Your task to perform on an android device: Show me popular videos on Youtube Image 0: 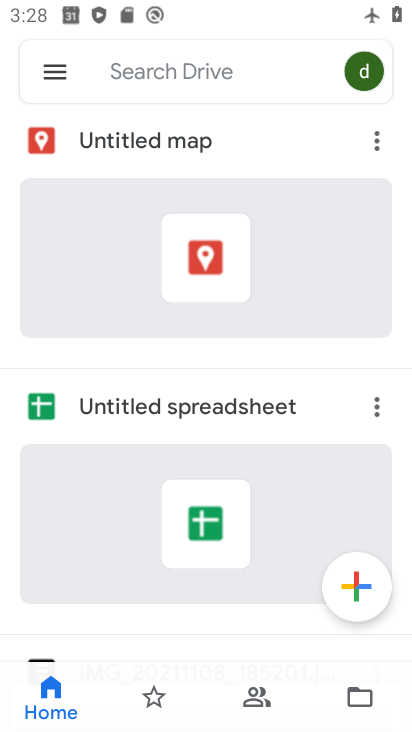
Step 0: press home button
Your task to perform on an android device: Show me popular videos on Youtube Image 1: 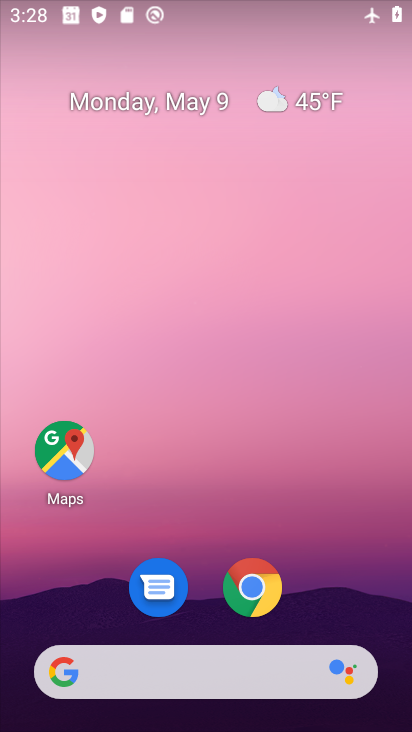
Step 1: drag from (401, 678) to (331, 263)
Your task to perform on an android device: Show me popular videos on Youtube Image 2: 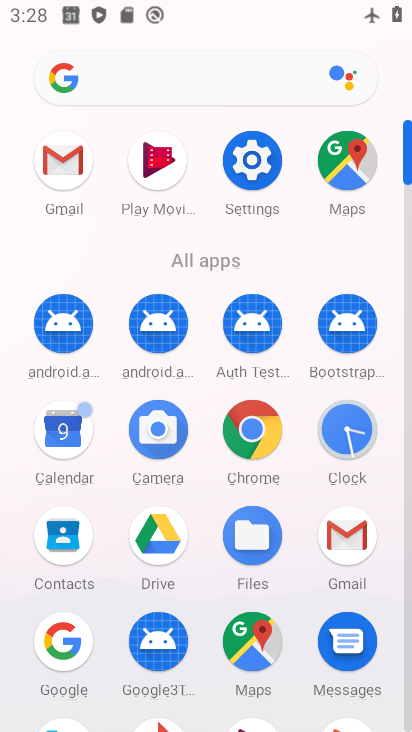
Step 2: drag from (405, 129) to (411, 44)
Your task to perform on an android device: Show me popular videos on Youtube Image 3: 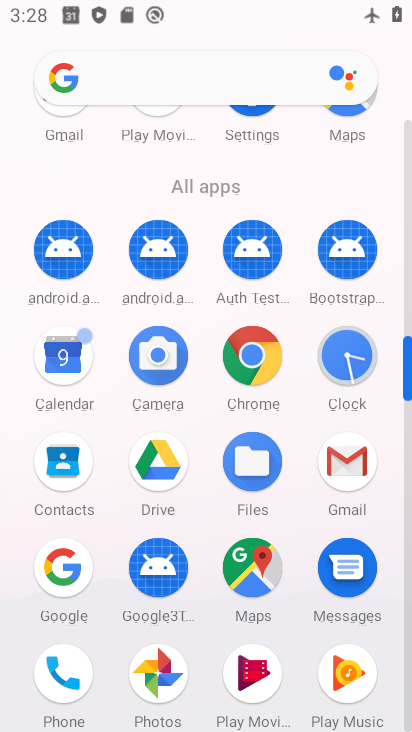
Step 3: drag from (410, 348) to (390, 219)
Your task to perform on an android device: Show me popular videos on Youtube Image 4: 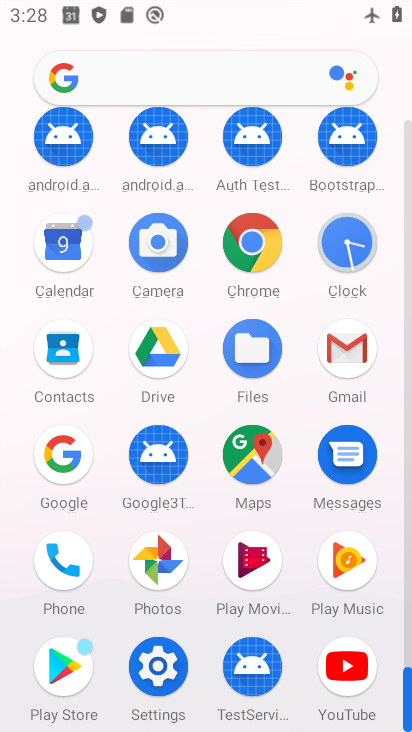
Step 4: click (355, 665)
Your task to perform on an android device: Show me popular videos on Youtube Image 5: 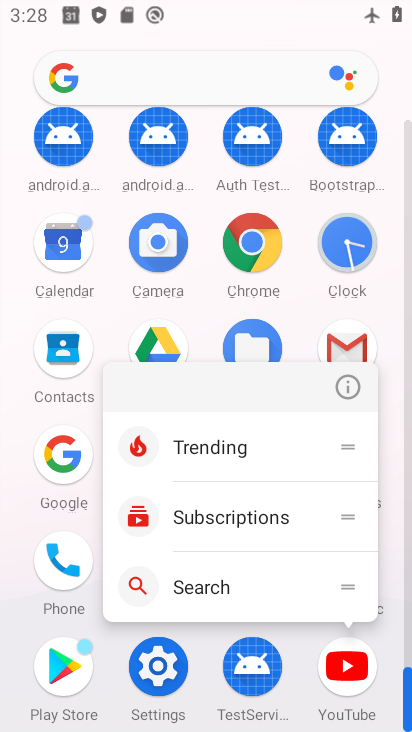
Step 5: click (342, 663)
Your task to perform on an android device: Show me popular videos on Youtube Image 6: 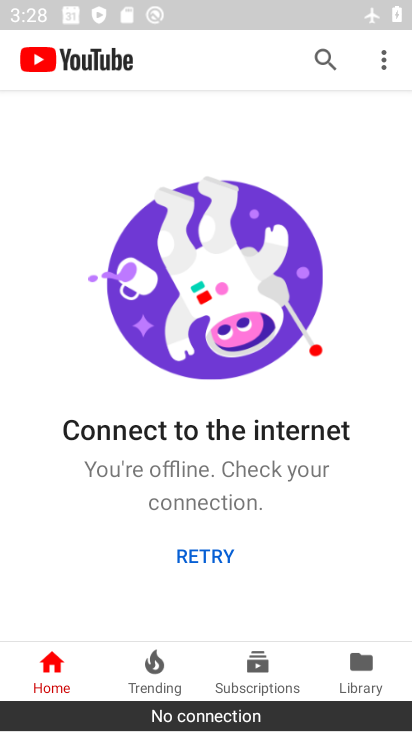
Step 6: task complete